Your task to perform on an android device: uninstall "PUBG MOBILE" Image 0: 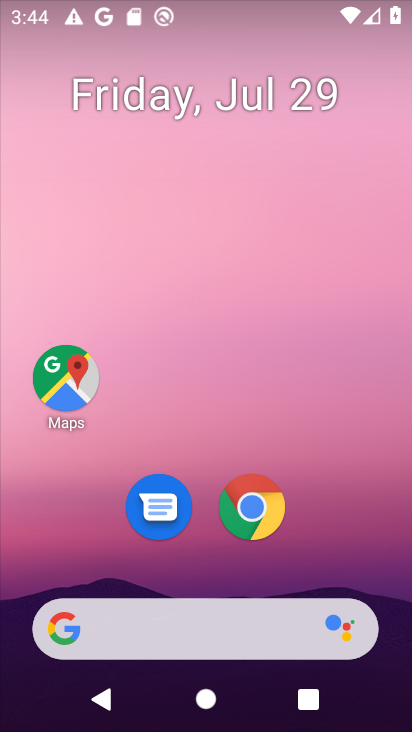
Step 0: task impossible